Your task to perform on an android device: turn notification dots on Image 0: 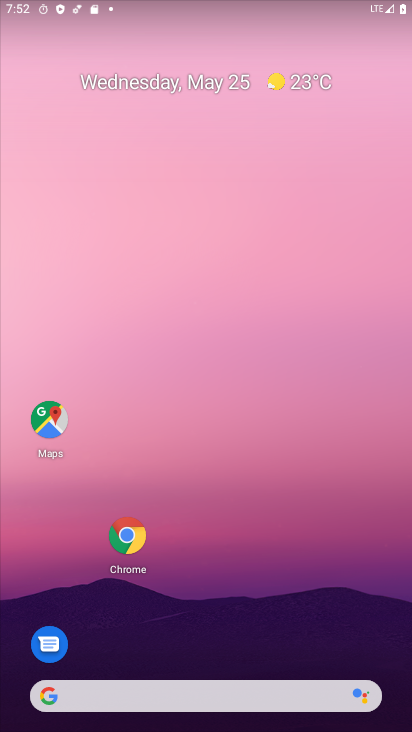
Step 0: press home button
Your task to perform on an android device: turn notification dots on Image 1: 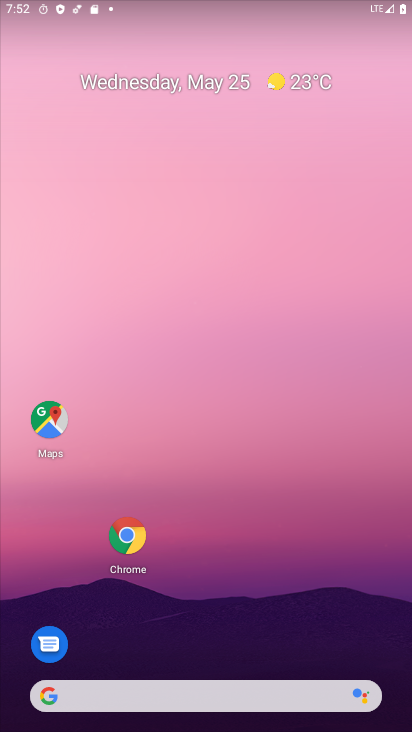
Step 1: drag from (236, 680) to (219, 193)
Your task to perform on an android device: turn notification dots on Image 2: 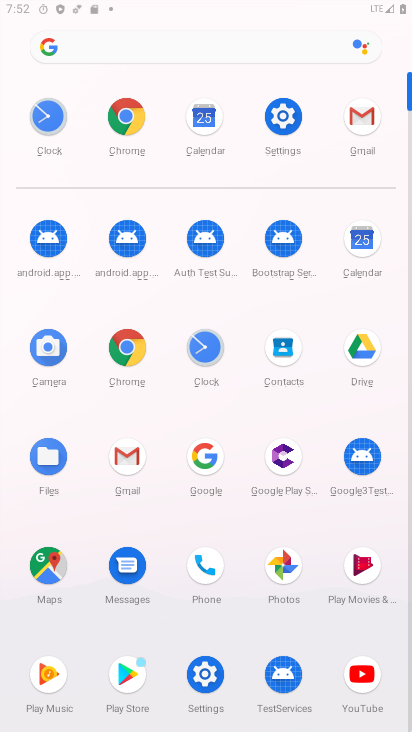
Step 2: click (219, 193)
Your task to perform on an android device: turn notification dots on Image 3: 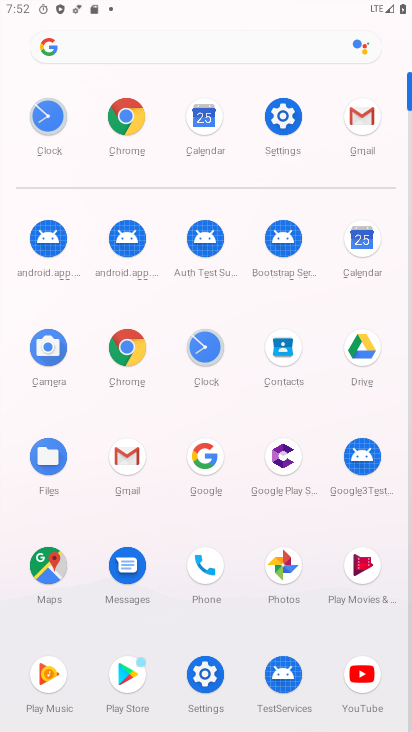
Step 3: click (270, 121)
Your task to perform on an android device: turn notification dots on Image 4: 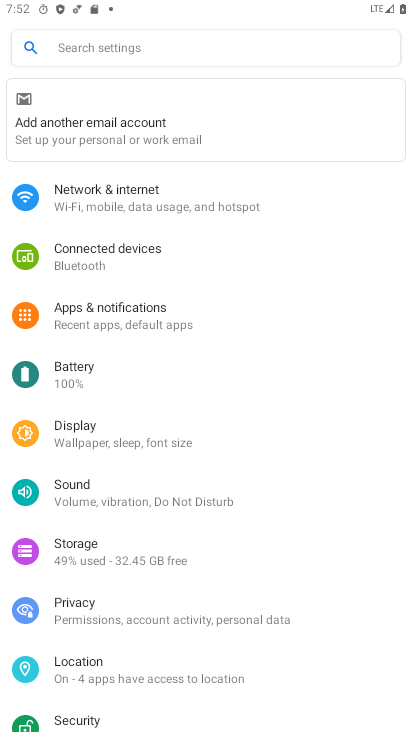
Step 4: click (118, 310)
Your task to perform on an android device: turn notification dots on Image 5: 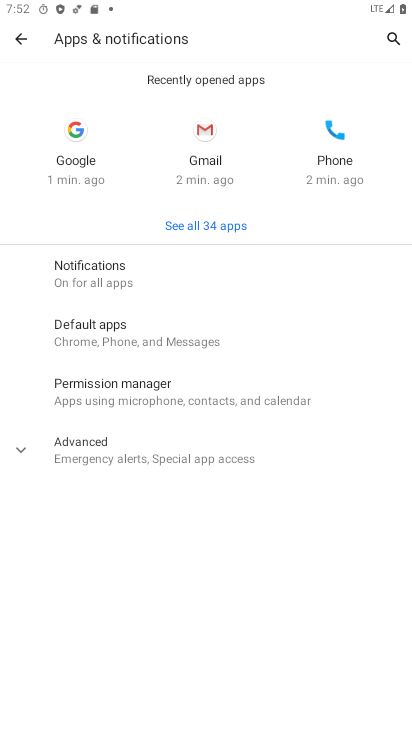
Step 5: click (104, 279)
Your task to perform on an android device: turn notification dots on Image 6: 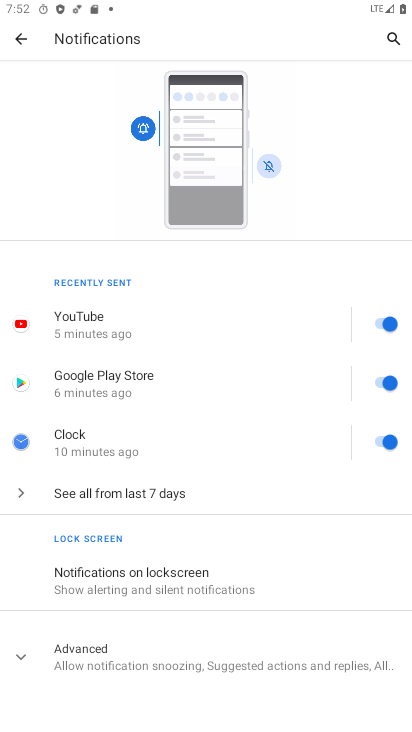
Step 6: click (107, 643)
Your task to perform on an android device: turn notification dots on Image 7: 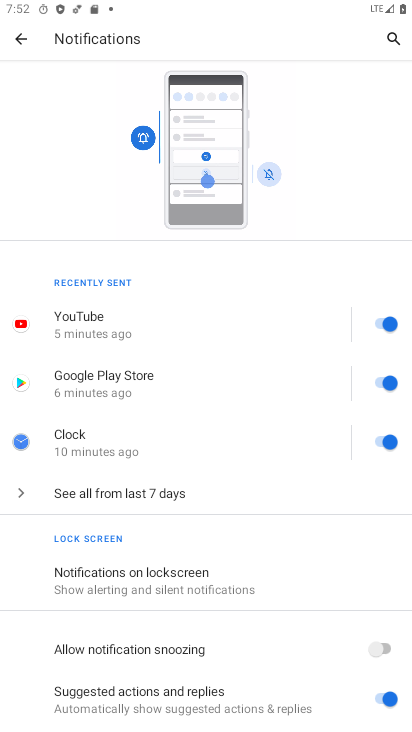
Step 7: task complete